Your task to perform on an android device: Open settings Image 0: 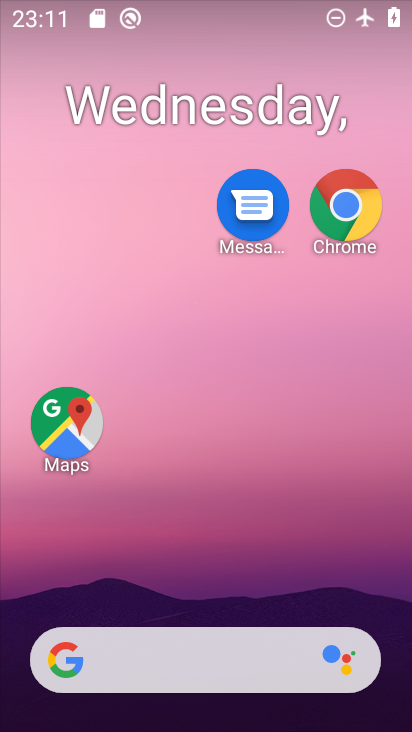
Step 0: drag from (180, 415) to (190, 95)
Your task to perform on an android device: Open settings Image 1: 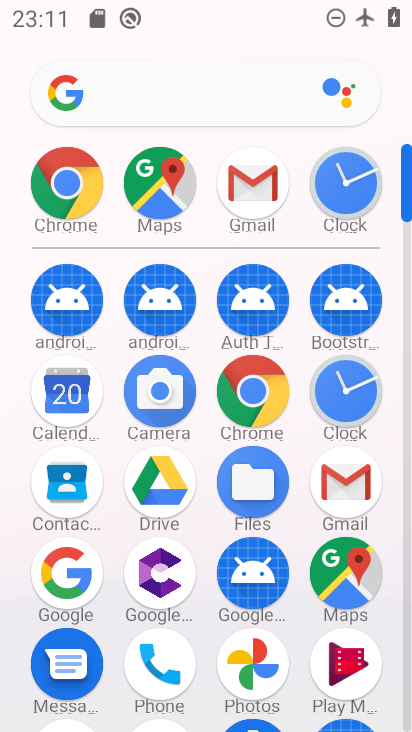
Step 1: drag from (200, 615) to (232, 325)
Your task to perform on an android device: Open settings Image 2: 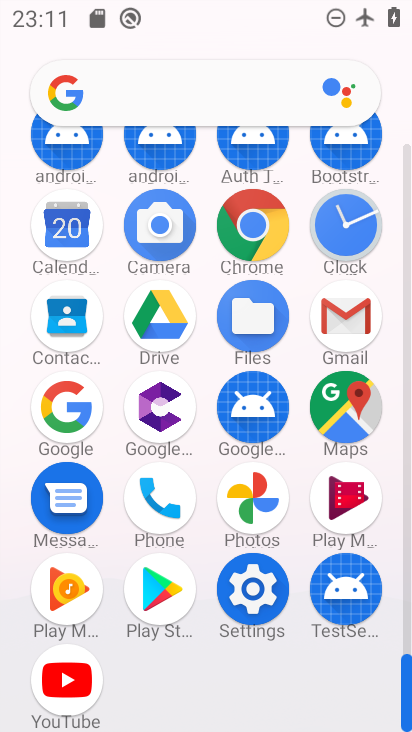
Step 2: click (260, 582)
Your task to perform on an android device: Open settings Image 3: 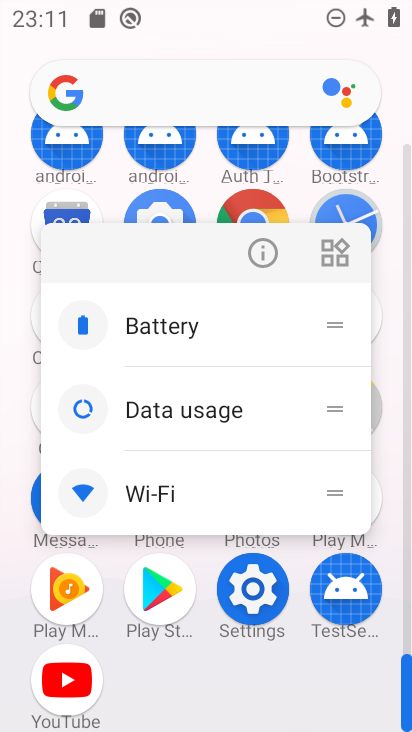
Step 3: task complete